Your task to perform on an android device: Open the phone app and click the voicemail tab. Image 0: 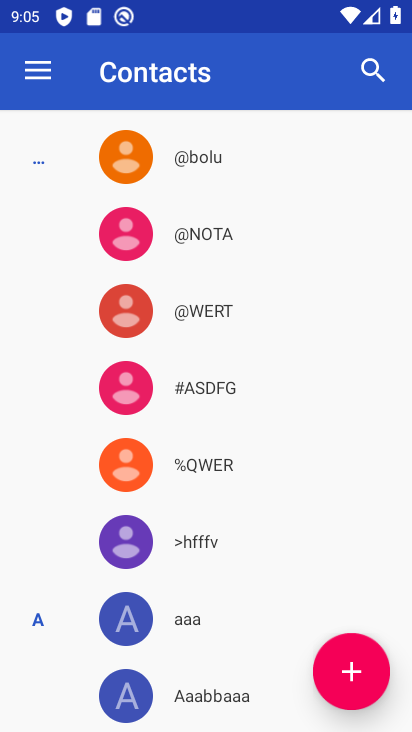
Step 0: press home button
Your task to perform on an android device: Open the phone app and click the voicemail tab. Image 1: 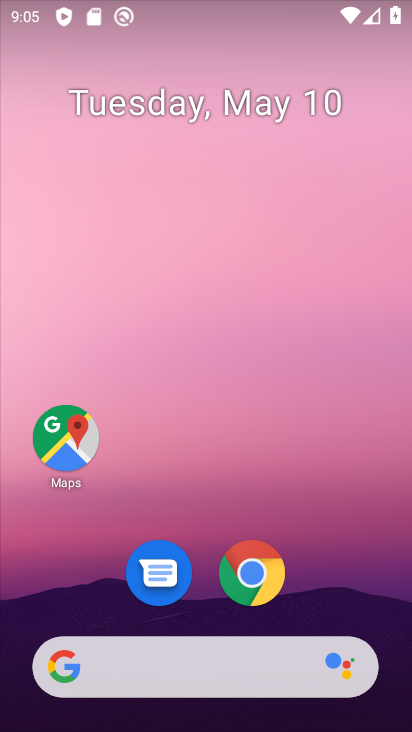
Step 1: drag from (319, 571) to (203, 22)
Your task to perform on an android device: Open the phone app and click the voicemail tab. Image 2: 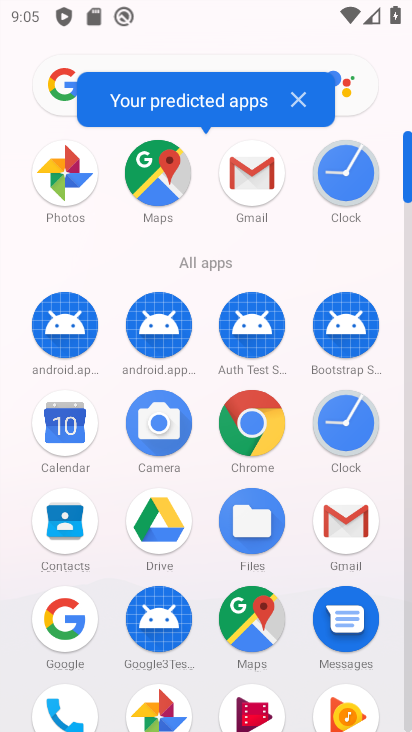
Step 2: click (60, 708)
Your task to perform on an android device: Open the phone app and click the voicemail tab. Image 3: 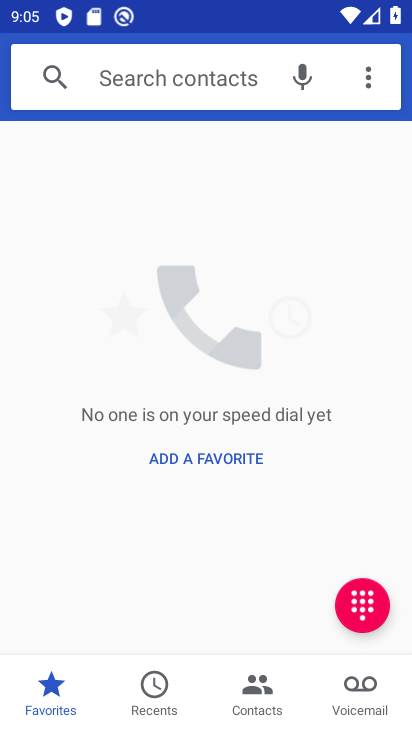
Step 3: click (363, 688)
Your task to perform on an android device: Open the phone app and click the voicemail tab. Image 4: 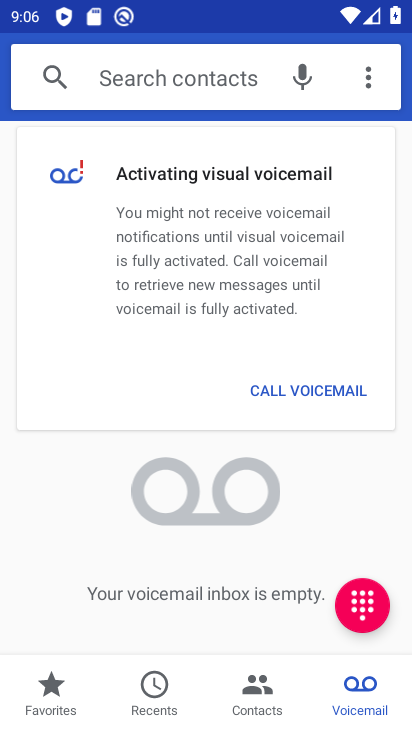
Step 4: task complete